Your task to perform on an android device: open a bookmark in the chrome app Image 0: 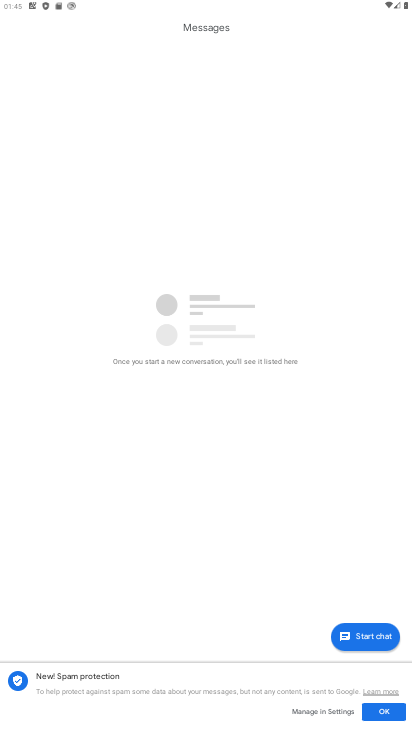
Step 0: drag from (218, 707) to (199, 205)
Your task to perform on an android device: open a bookmark in the chrome app Image 1: 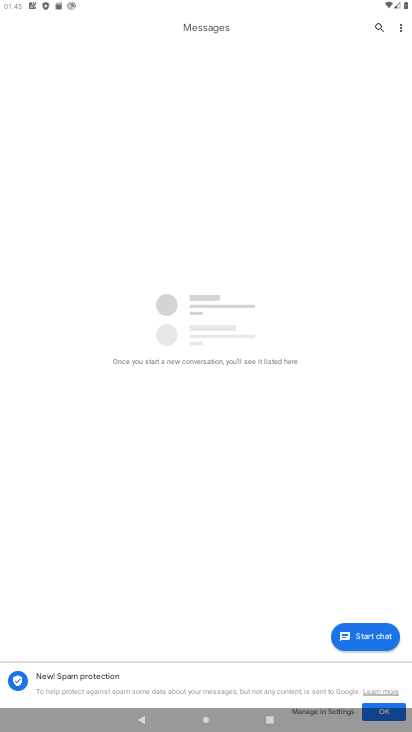
Step 1: press home button
Your task to perform on an android device: open a bookmark in the chrome app Image 2: 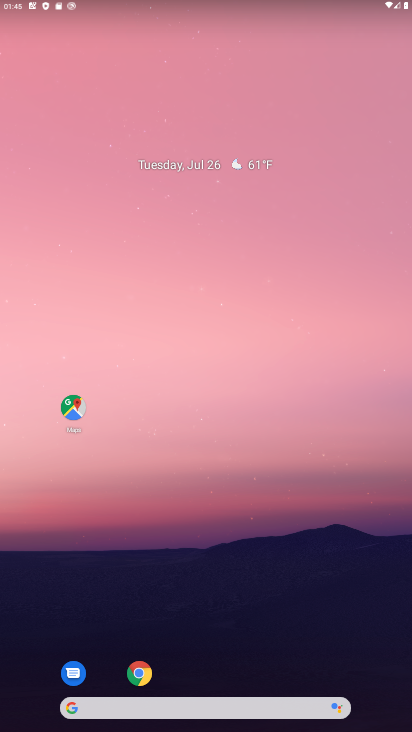
Step 2: click (139, 674)
Your task to perform on an android device: open a bookmark in the chrome app Image 3: 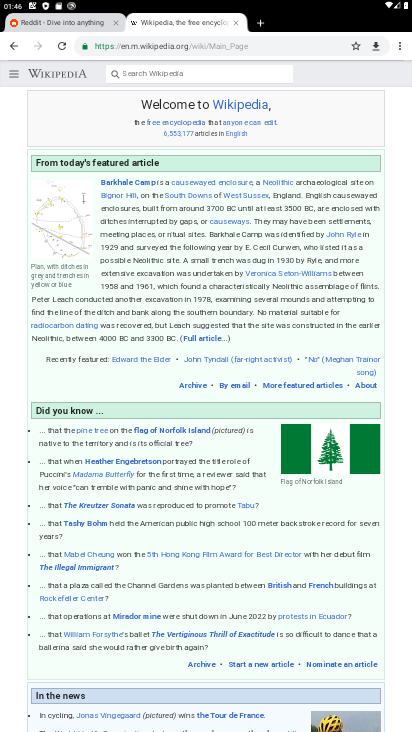
Step 3: click (400, 47)
Your task to perform on an android device: open a bookmark in the chrome app Image 4: 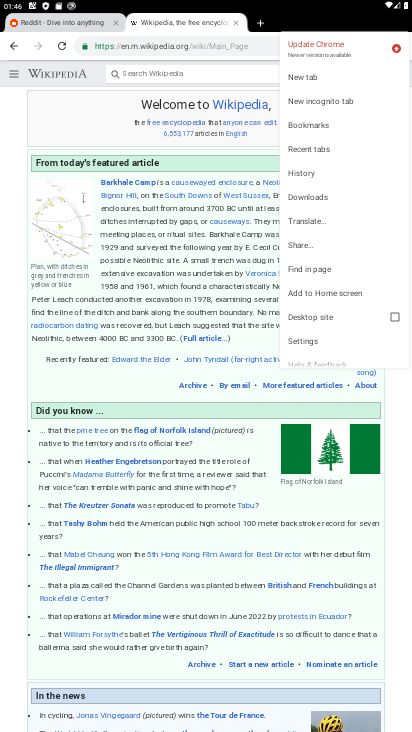
Step 4: click (303, 124)
Your task to perform on an android device: open a bookmark in the chrome app Image 5: 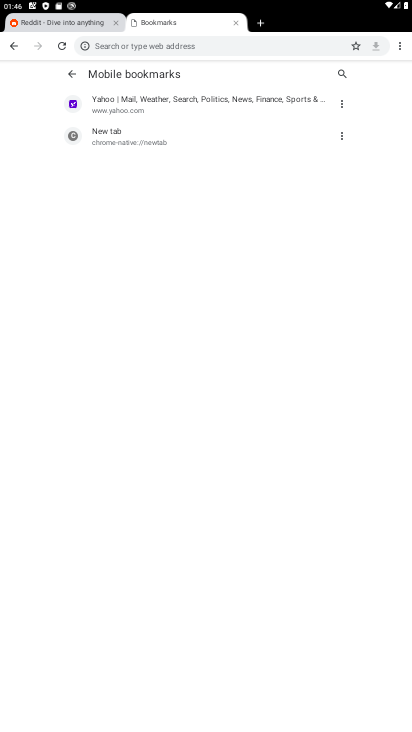
Step 5: click (209, 100)
Your task to perform on an android device: open a bookmark in the chrome app Image 6: 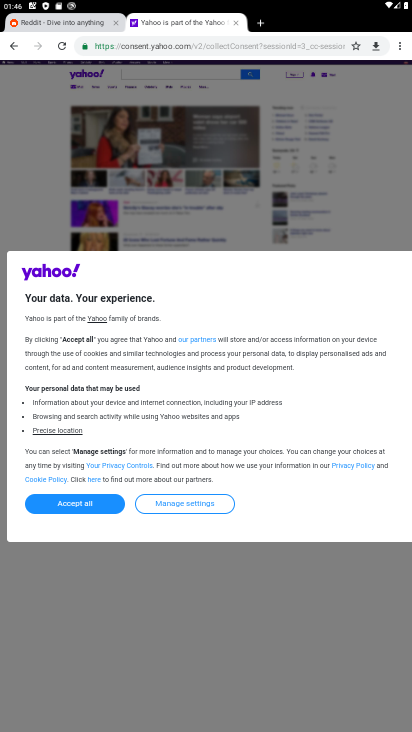
Step 6: click (61, 498)
Your task to perform on an android device: open a bookmark in the chrome app Image 7: 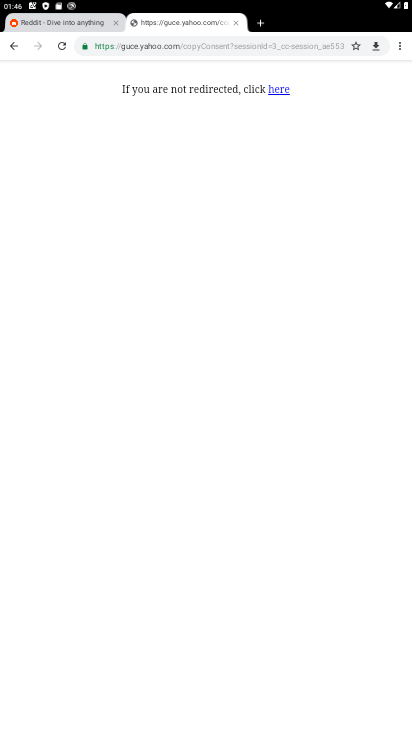
Step 7: task complete